Your task to perform on an android device: check data usage Image 0: 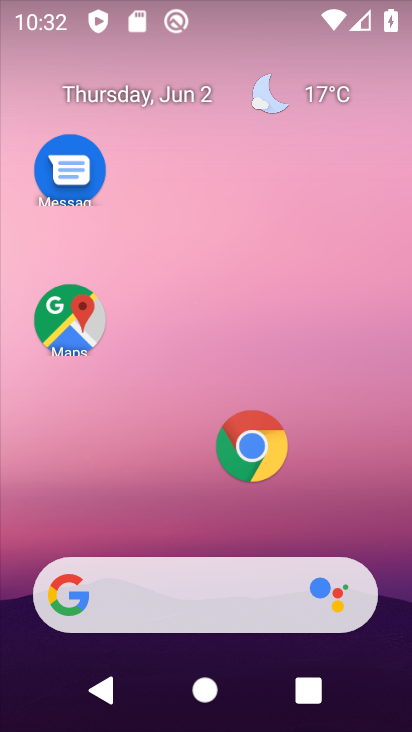
Step 0: drag from (281, 13) to (258, 548)
Your task to perform on an android device: check data usage Image 1: 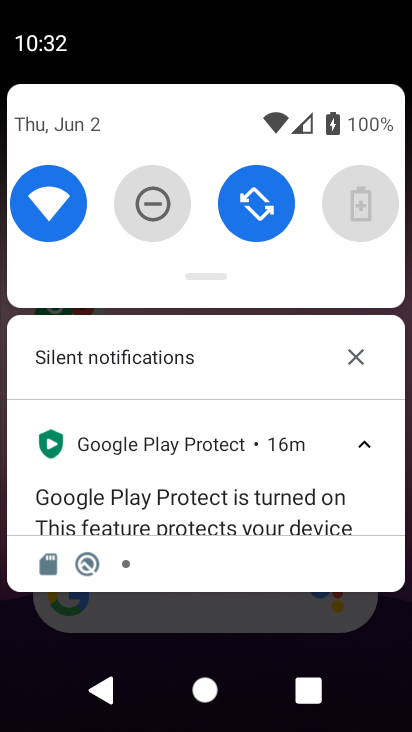
Step 1: drag from (318, 220) to (234, 666)
Your task to perform on an android device: check data usage Image 2: 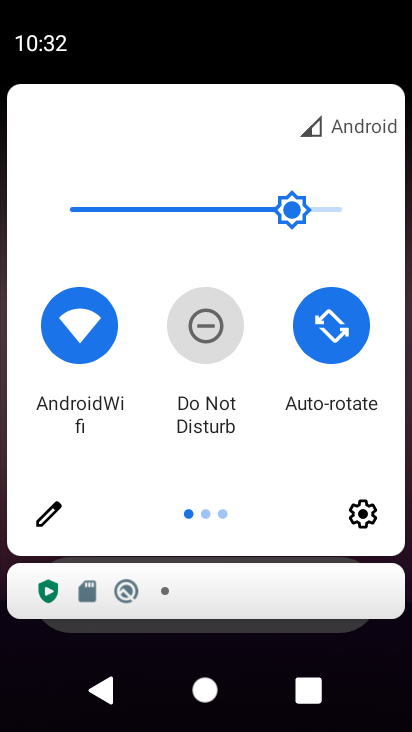
Step 2: drag from (379, 316) to (24, 372)
Your task to perform on an android device: check data usage Image 3: 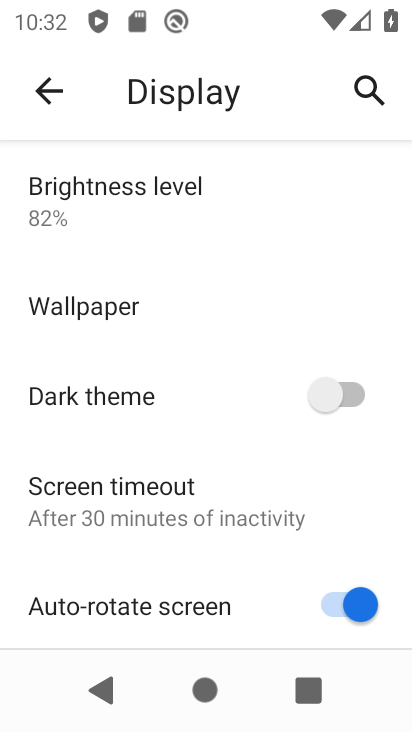
Step 3: press home button
Your task to perform on an android device: check data usage Image 4: 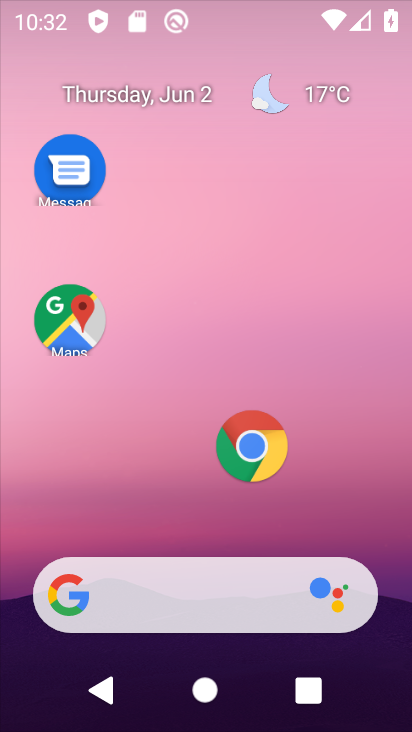
Step 4: drag from (264, 5) to (147, 499)
Your task to perform on an android device: check data usage Image 5: 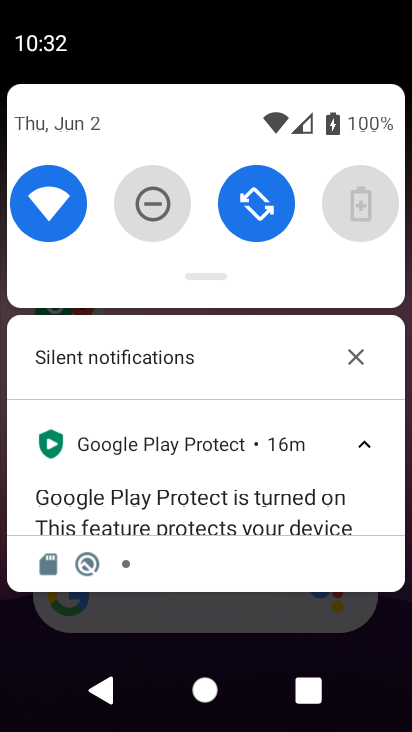
Step 5: drag from (364, 216) to (2, 232)
Your task to perform on an android device: check data usage Image 6: 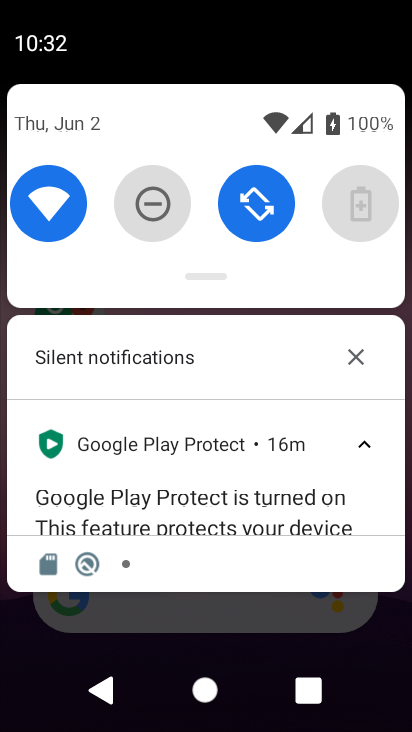
Step 6: drag from (206, 319) to (175, 673)
Your task to perform on an android device: check data usage Image 7: 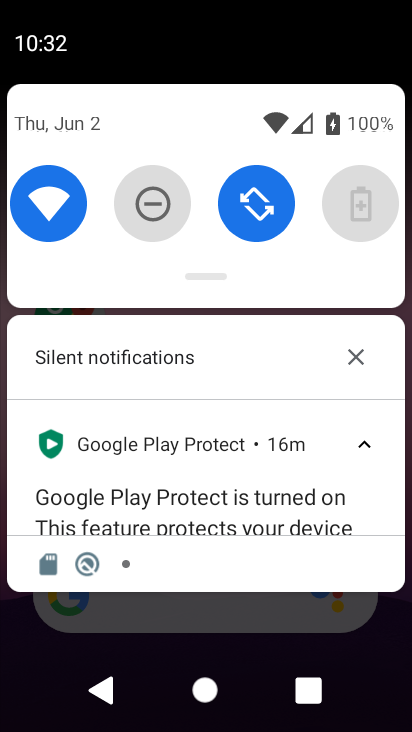
Step 7: drag from (213, 276) to (244, 679)
Your task to perform on an android device: check data usage Image 8: 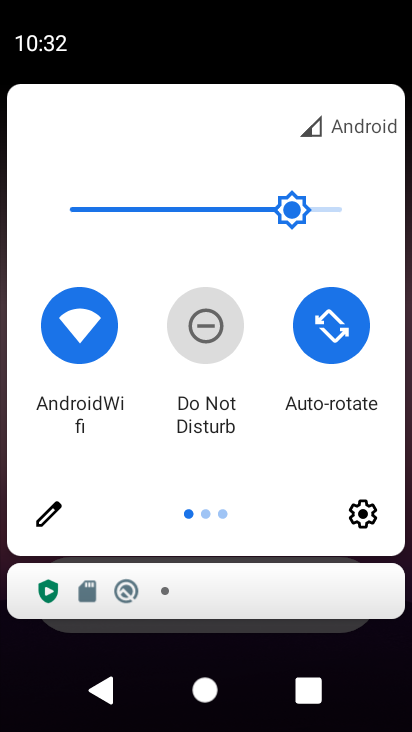
Step 8: drag from (395, 322) to (0, 369)
Your task to perform on an android device: check data usage Image 9: 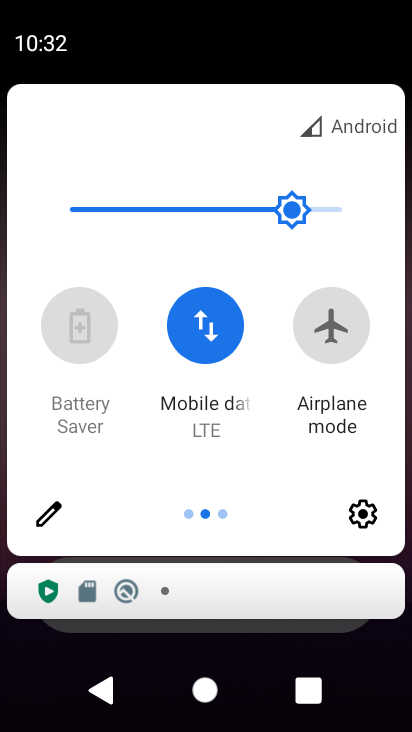
Step 9: click (213, 322)
Your task to perform on an android device: check data usage Image 10: 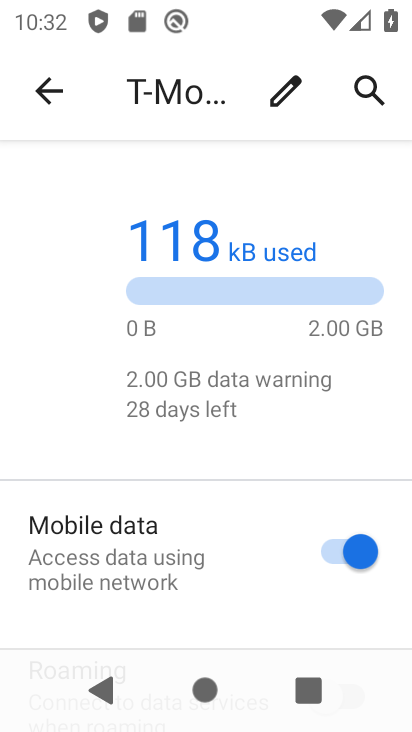
Step 10: task complete